Your task to perform on an android device: delete the emails in spam in the gmail app Image 0: 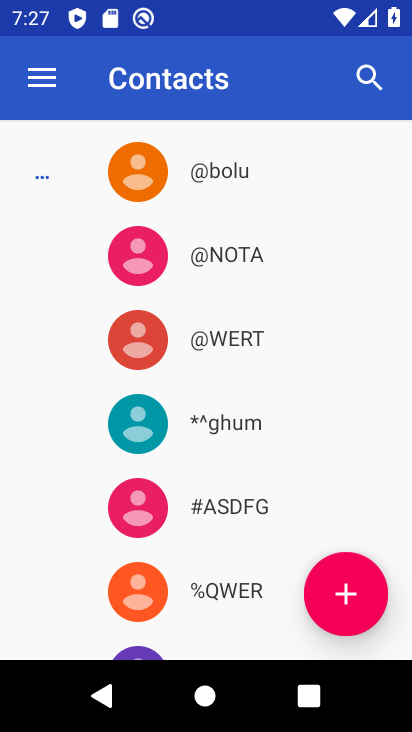
Step 0: press home button
Your task to perform on an android device: delete the emails in spam in the gmail app Image 1: 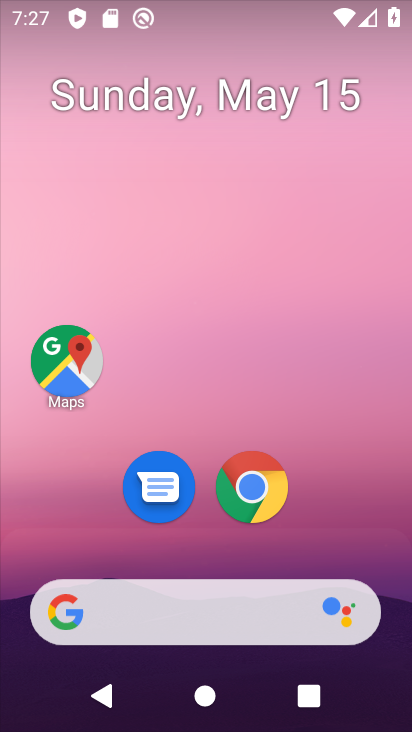
Step 1: drag from (385, 508) to (312, 49)
Your task to perform on an android device: delete the emails in spam in the gmail app Image 2: 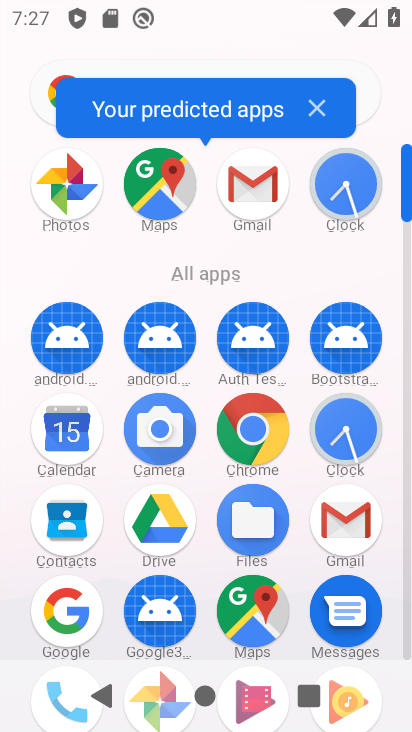
Step 2: click (341, 507)
Your task to perform on an android device: delete the emails in spam in the gmail app Image 3: 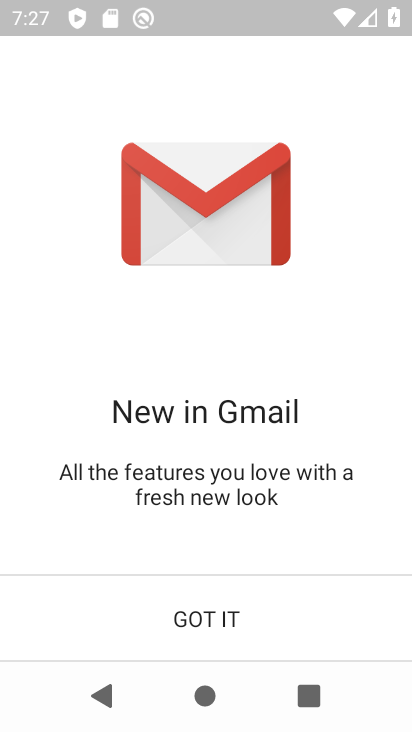
Step 3: click (200, 607)
Your task to perform on an android device: delete the emails in spam in the gmail app Image 4: 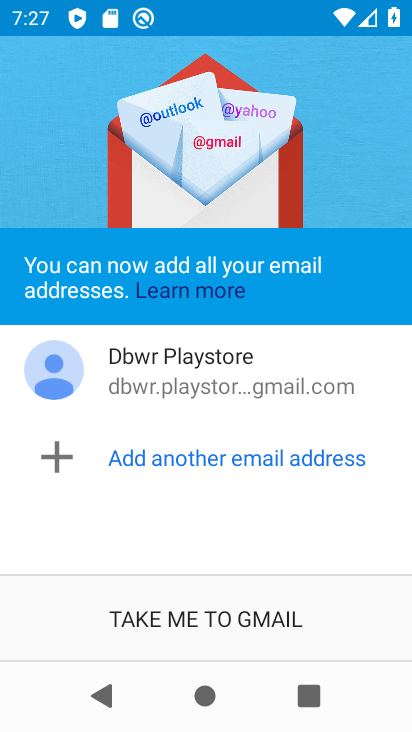
Step 4: click (209, 611)
Your task to perform on an android device: delete the emails in spam in the gmail app Image 5: 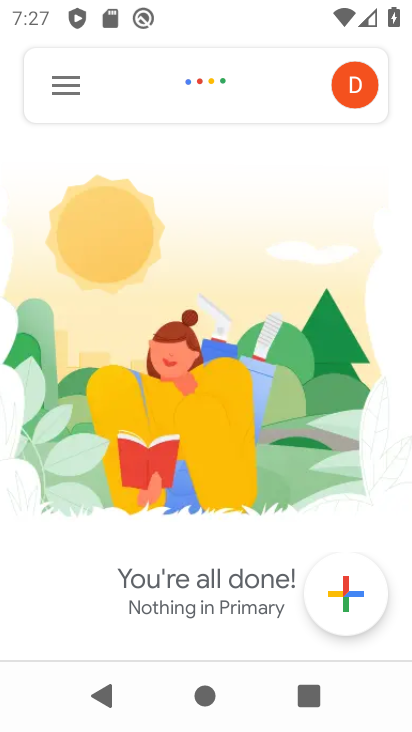
Step 5: click (52, 75)
Your task to perform on an android device: delete the emails in spam in the gmail app Image 6: 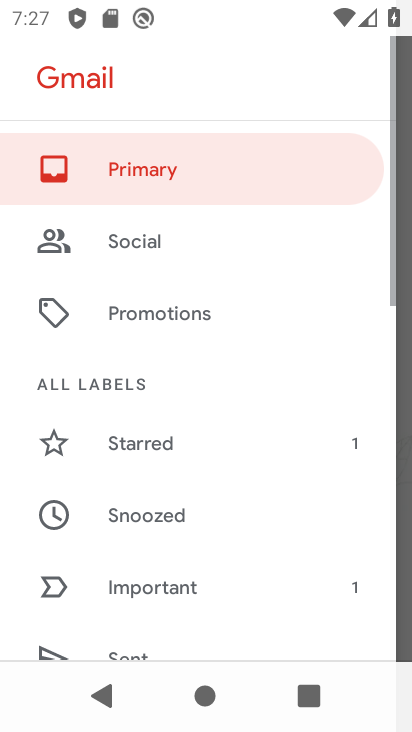
Step 6: drag from (158, 629) to (243, 229)
Your task to perform on an android device: delete the emails in spam in the gmail app Image 7: 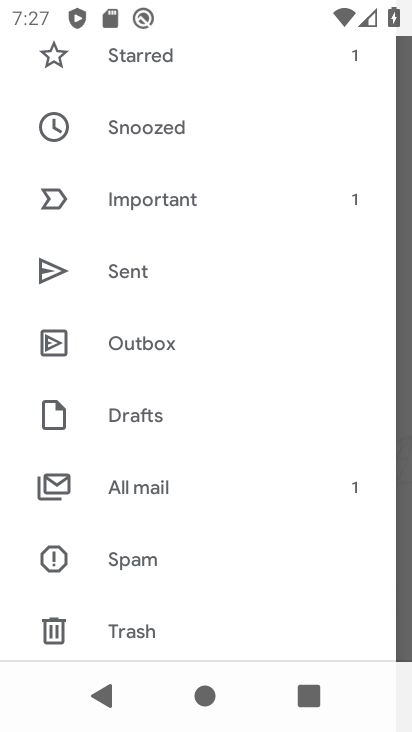
Step 7: click (182, 569)
Your task to perform on an android device: delete the emails in spam in the gmail app Image 8: 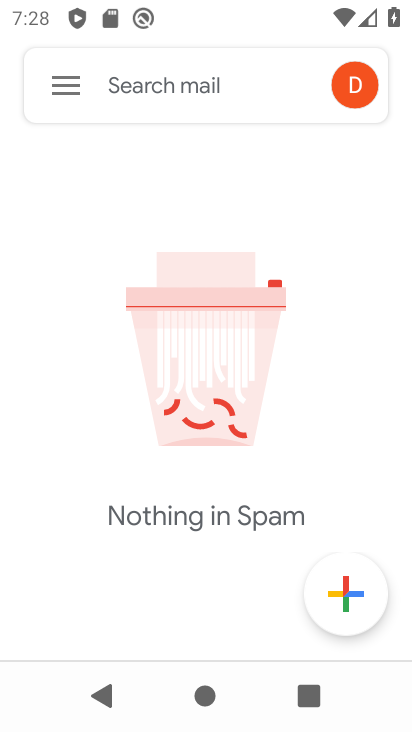
Step 8: task complete